Your task to perform on an android device: change notification settings in the gmail app Image 0: 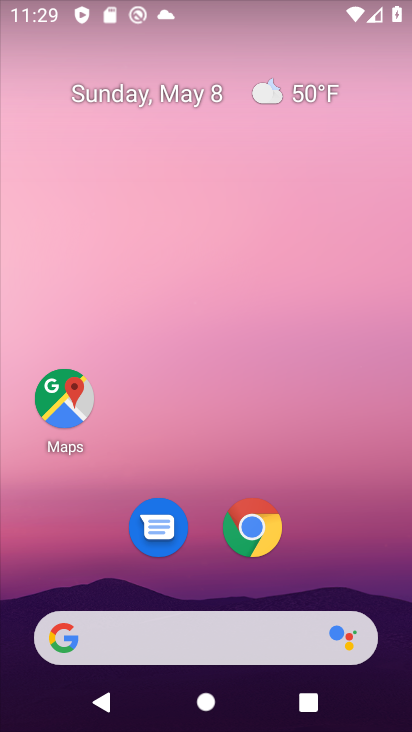
Step 0: drag from (170, 723) to (180, 200)
Your task to perform on an android device: change notification settings in the gmail app Image 1: 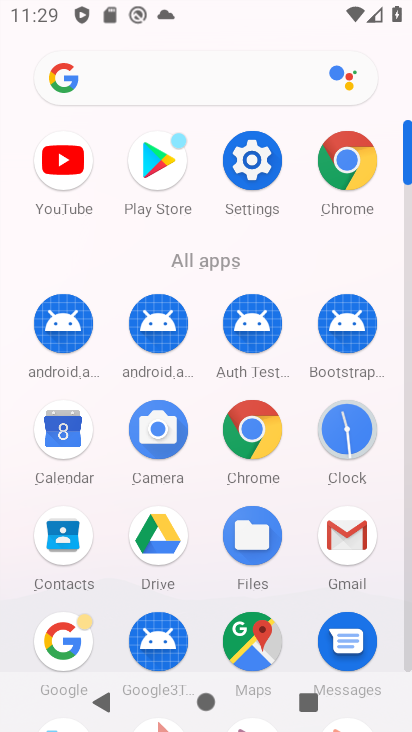
Step 1: click (348, 533)
Your task to perform on an android device: change notification settings in the gmail app Image 2: 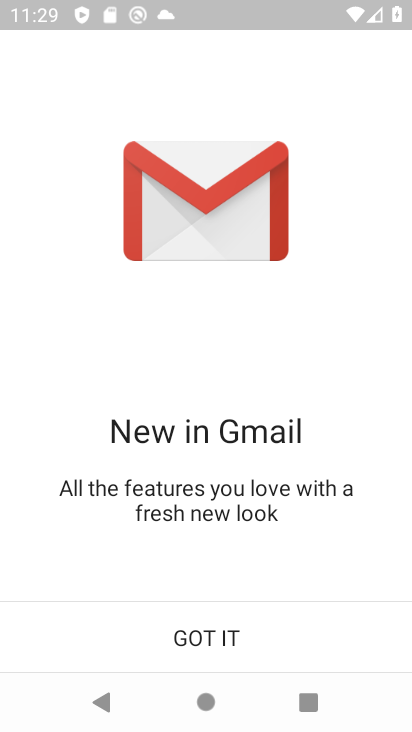
Step 2: click (201, 624)
Your task to perform on an android device: change notification settings in the gmail app Image 3: 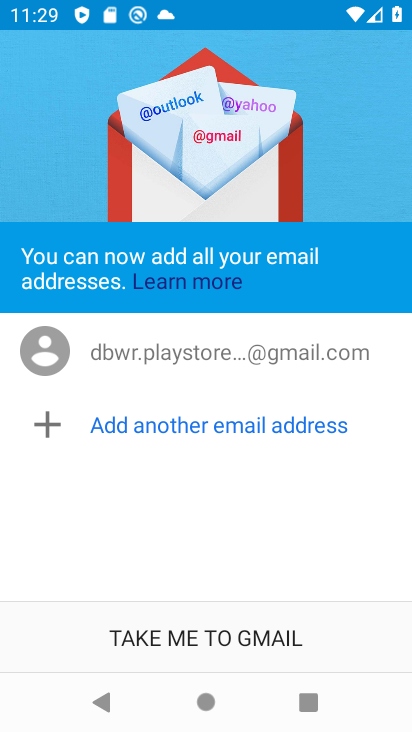
Step 3: click (209, 635)
Your task to perform on an android device: change notification settings in the gmail app Image 4: 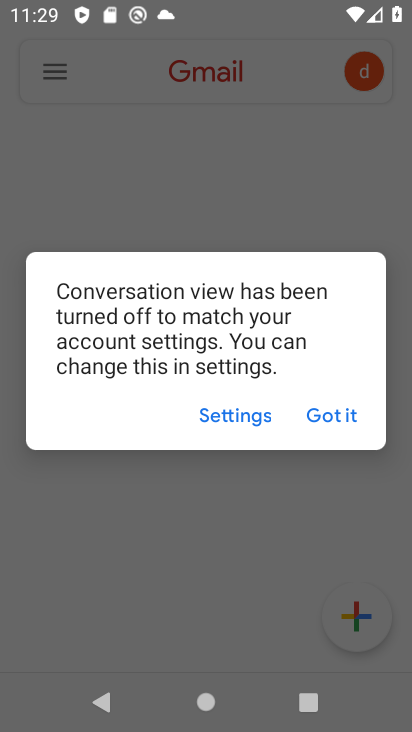
Step 4: click (329, 416)
Your task to perform on an android device: change notification settings in the gmail app Image 5: 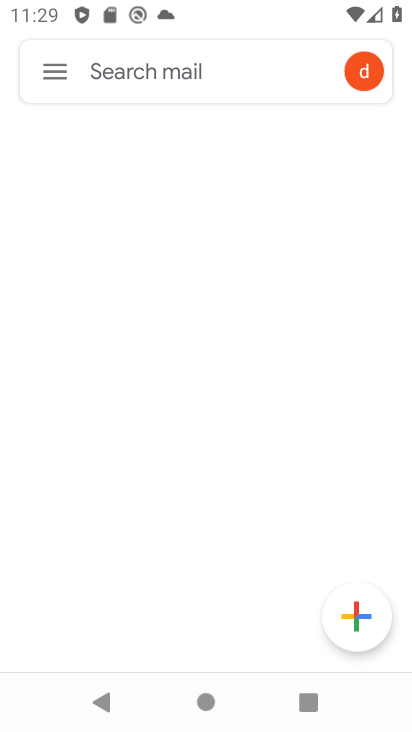
Step 5: click (55, 65)
Your task to perform on an android device: change notification settings in the gmail app Image 6: 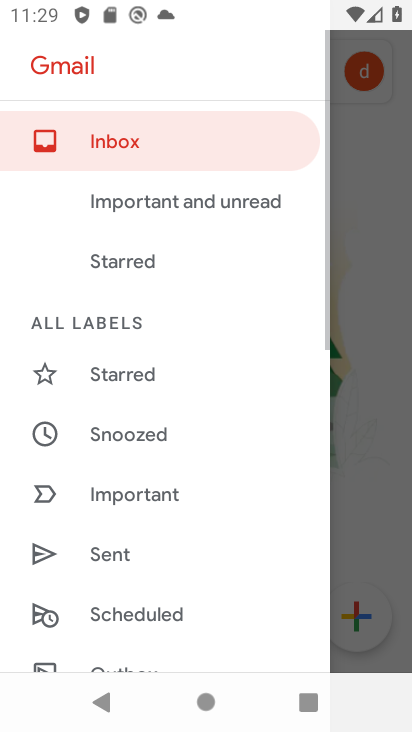
Step 6: drag from (139, 644) to (143, 243)
Your task to perform on an android device: change notification settings in the gmail app Image 7: 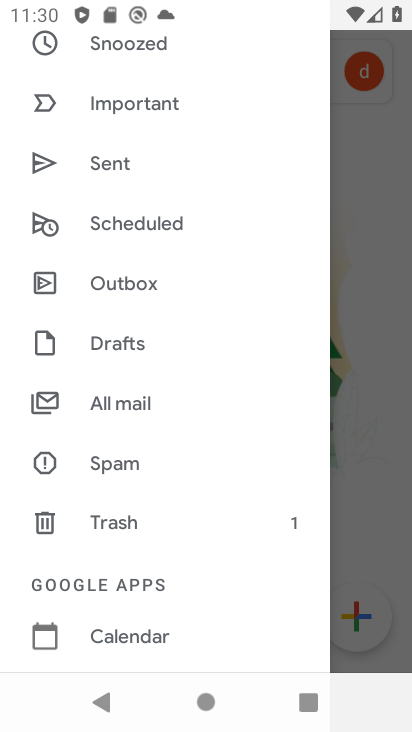
Step 7: drag from (140, 637) to (144, 231)
Your task to perform on an android device: change notification settings in the gmail app Image 8: 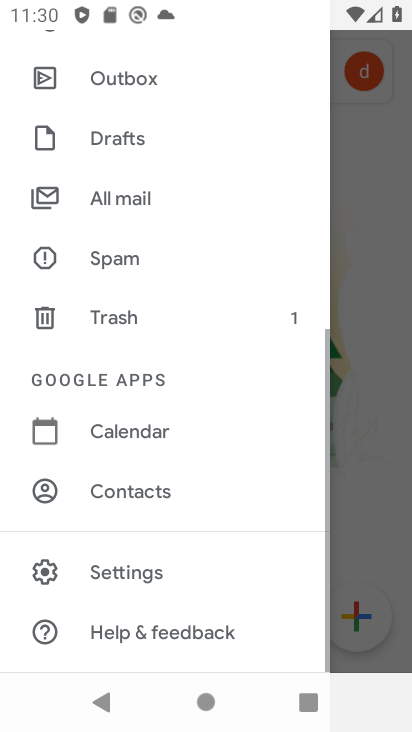
Step 8: click (129, 569)
Your task to perform on an android device: change notification settings in the gmail app Image 9: 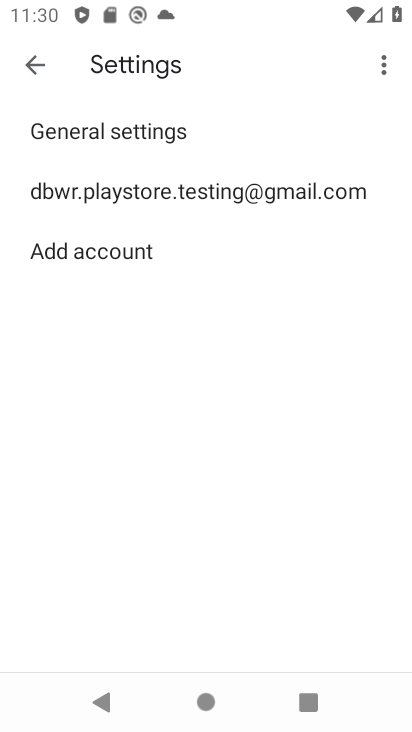
Step 9: click (166, 194)
Your task to perform on an android device: change notification settings in the gmail app Image 10: 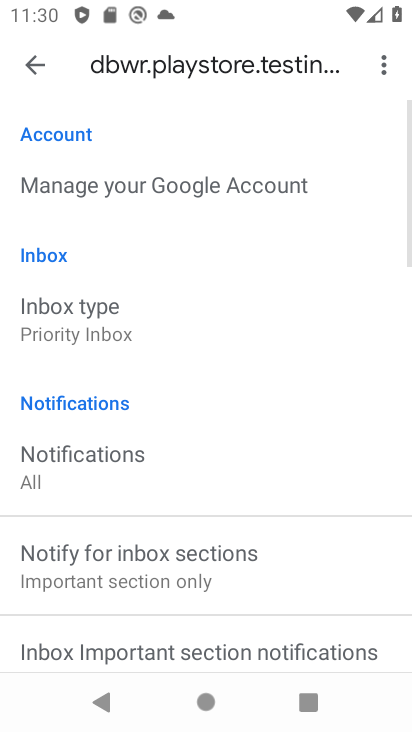
Step 10: drag from (137, 632) to (145, 376)
Your task to perform on an android device: change notification settings in the gmail app Image 11: 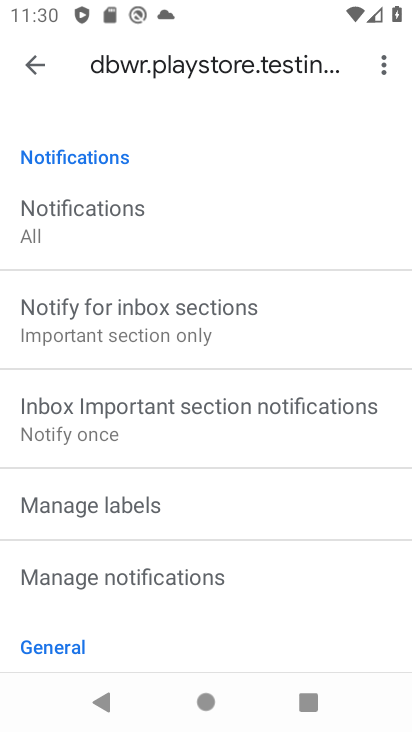
Step 11: click (72, 208)
Your task to perform on an android device: change notification settings in the gmail app Image 12: 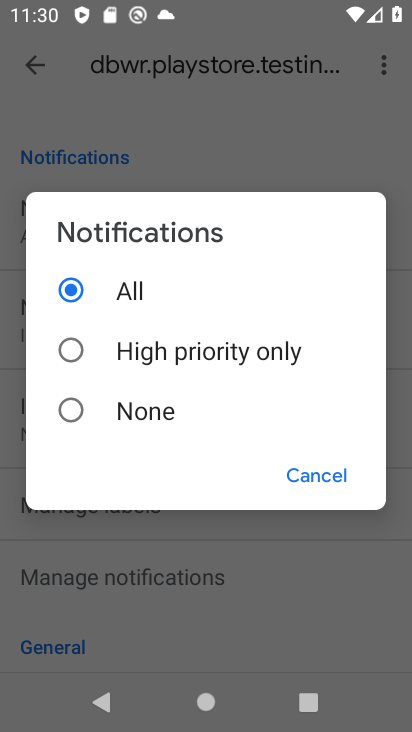
Step 12: click (66, 415)
Your task to perform on an android device: change notification settings in the gmail app Image 13: 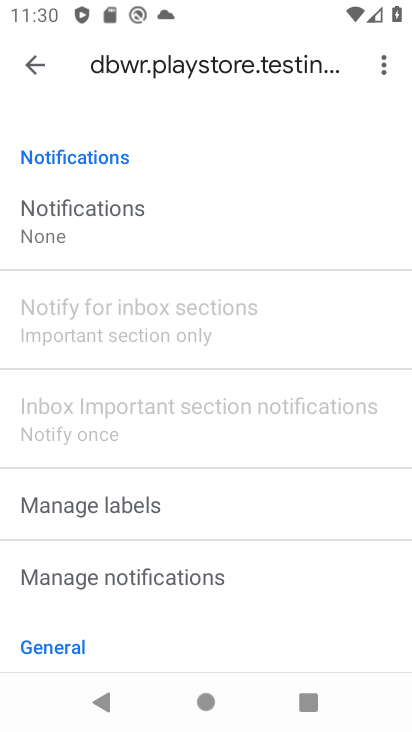
Step 13: task complete